Your task to perform on an android device: search for starred emails in the gmail app Image 0: 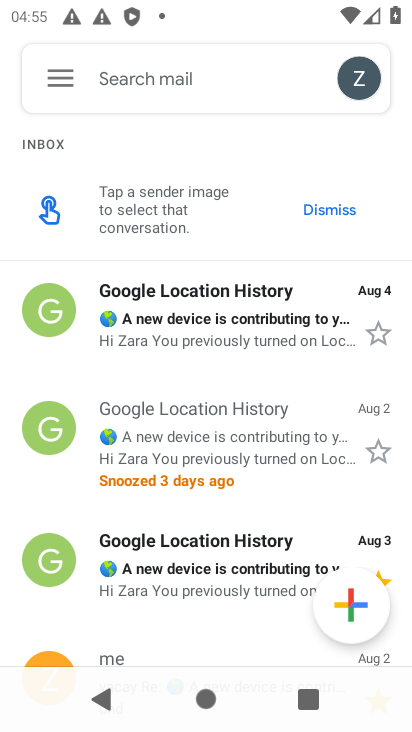
Step 0: press home button
Your task to perform on an android device: search for starred emails in the gmail app Image 1: 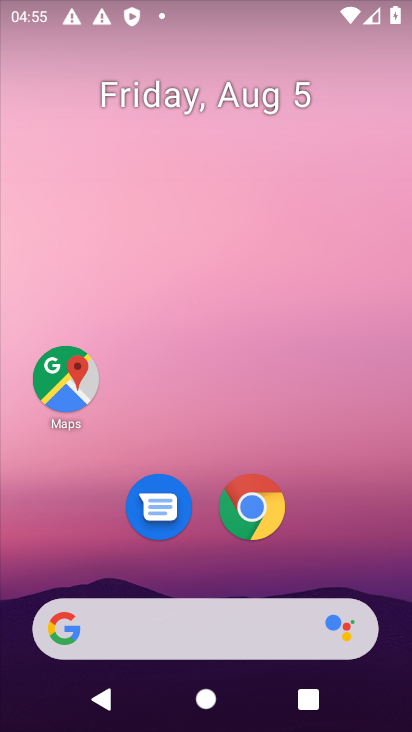
Step 1: drag from (200, 601) to (219, 296)
Your task to perform on an android device: search for starred emails in the gmail app Image 2: 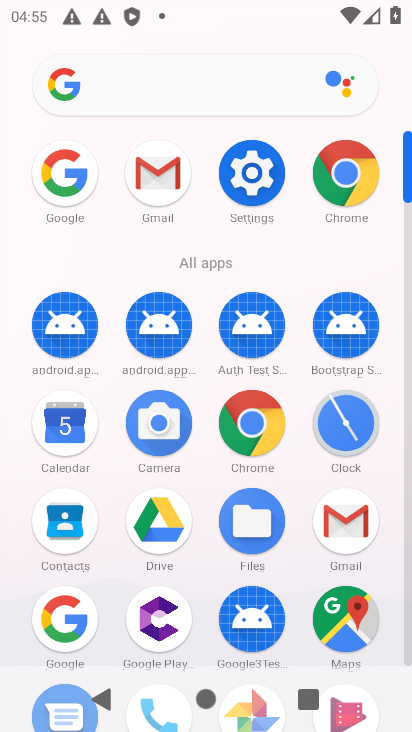
Step 2: click (168, 182)
Your task to perform on an android device: search for starred emails in the gmail app Image 3: 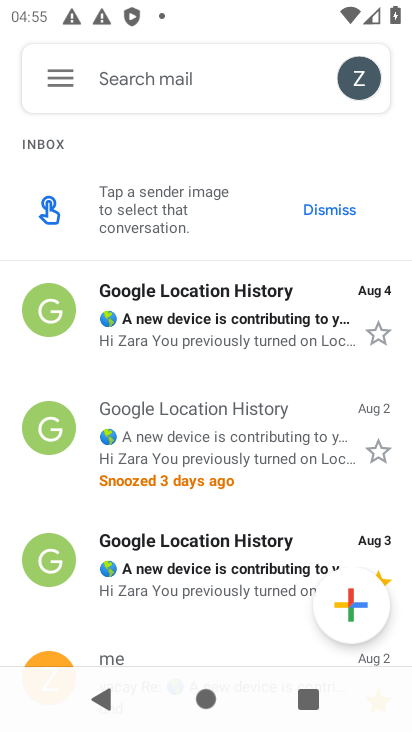
Step 3: click (60, 81)
Your task to perform on an android device: search for starred emails in the gmail app Image 4: 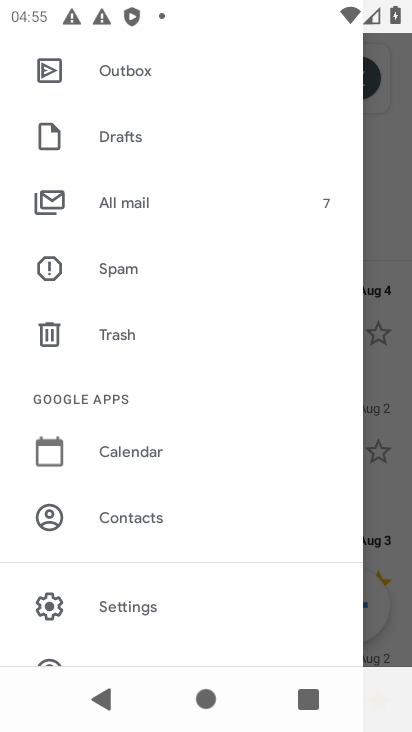
Step 4: drag from (158, 112) to (178, 429)
Your task to perform on an android device: search for starred emails in the gmail app Image 5: 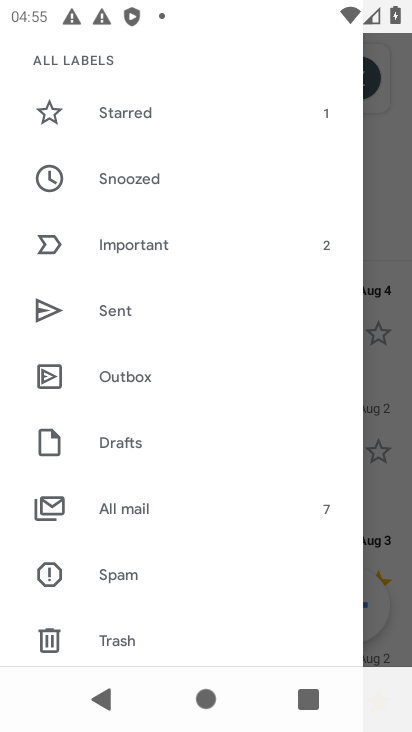
Step 5: click (111, 104)
Your task to perform on an android device: search for starred emails in the gmail app Image 6: 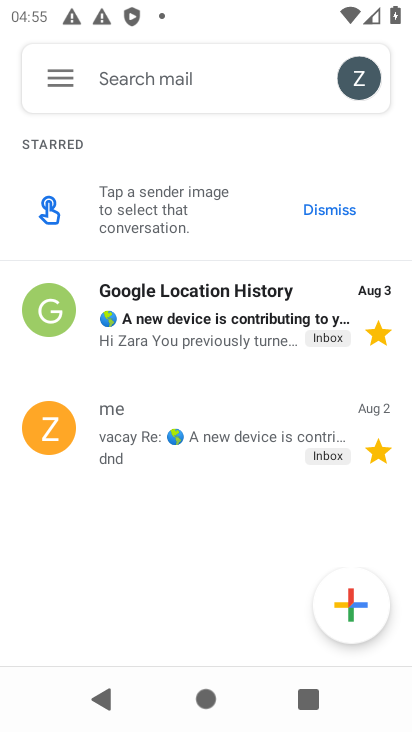
Step 6: task complete